Your task to perform on an android device: turn off location Image 0: 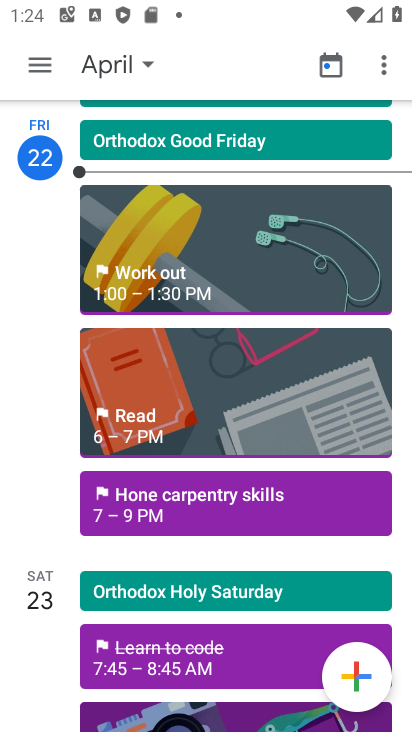
Step 0: press home button
Your task to perform on an android device: turn off location Image 1: 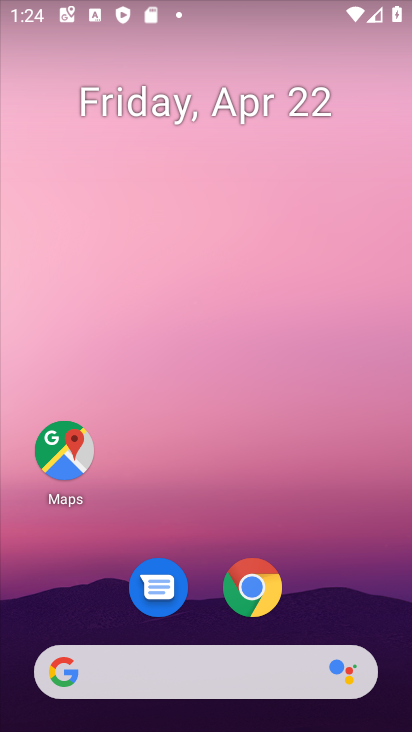
Step 1: drag from (201, 605) to (235, 173)
Your task to perform on an android device: turn off location Image 2: 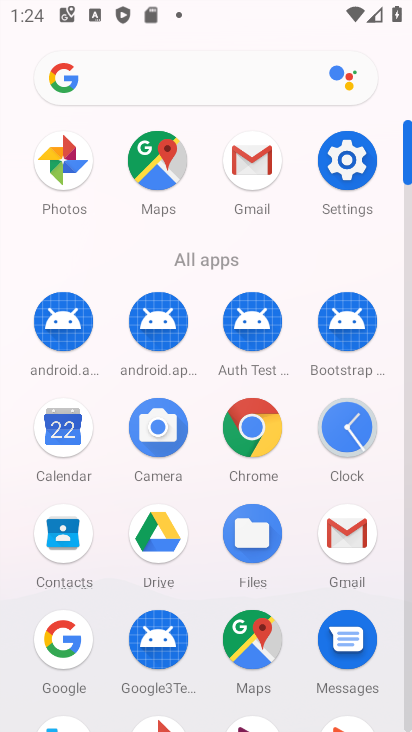
Step 2: click (343, 169)
Your task to perform on an android device: turn off location Image 3: 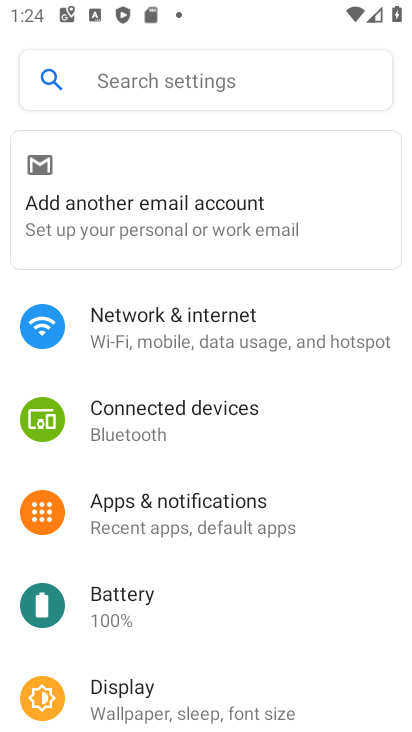
Step 3: drag from (172, 458) to (208, 246)
Your task to perform on an android device: turn off location Image 4: 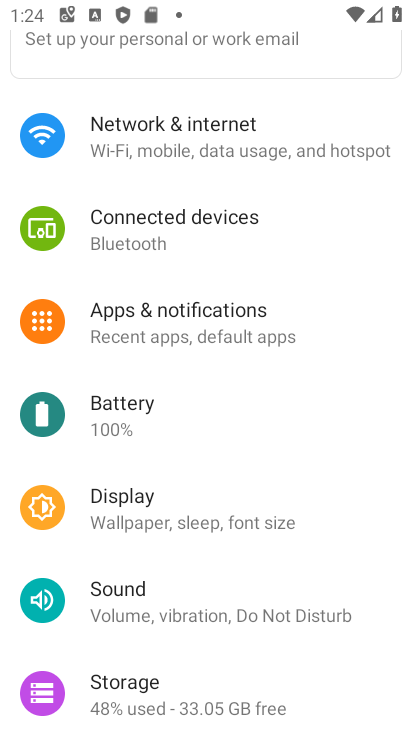
Step 4: drag from (198, 540) to (241, 201)
Your task to perform on an android device: turn off location Image 5: 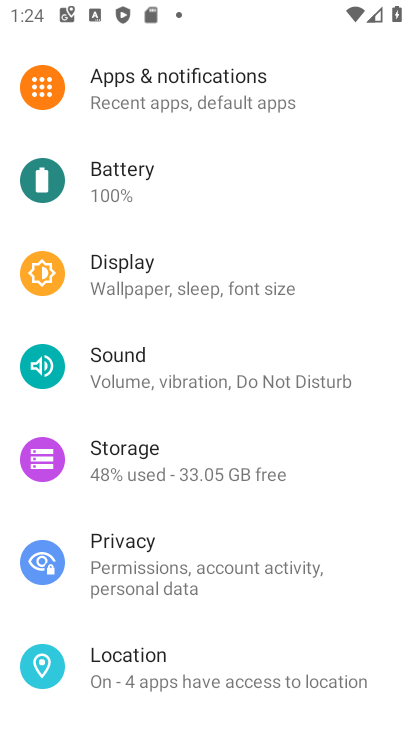
Step 5: click (174, 687)
Your task to perform on an android device: turn off location Image 6: 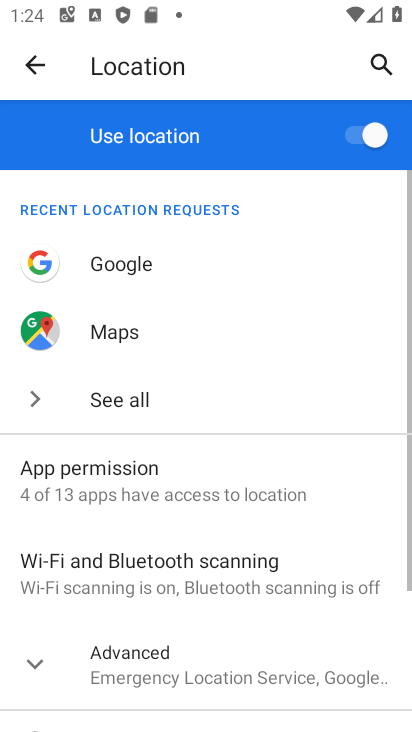
Step 6: click (354, 140)
Your task to perform on an android device: turn off location Image 7: 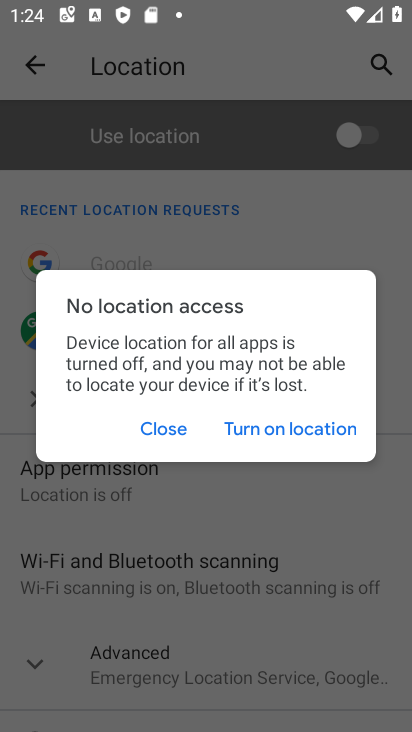
Step 7: task complete